Your task to perform on an android device: visit the assistant section in the google photos Image 0: 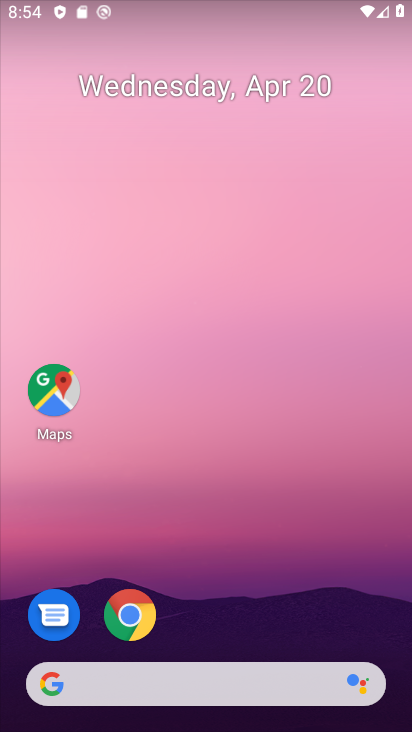
Step 0: drag from (233, 635) to (287, 43)
Your task to perform on an android device: visit the assistant section in the google photos Image 1: 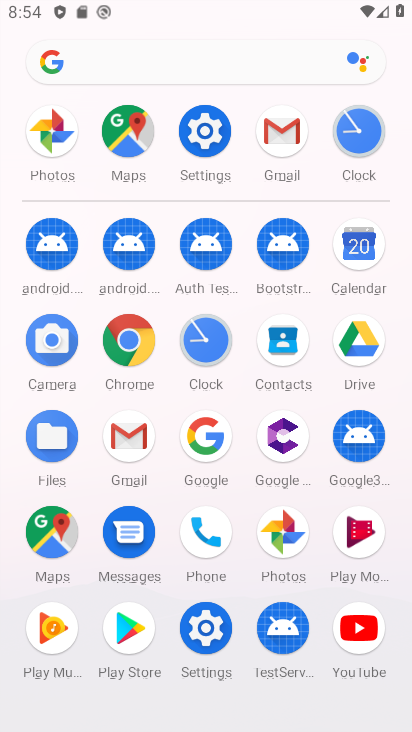
Step 1: click (52, 130)
Your task to perform on an android device: visit the assistant section in the google photos Image 2: 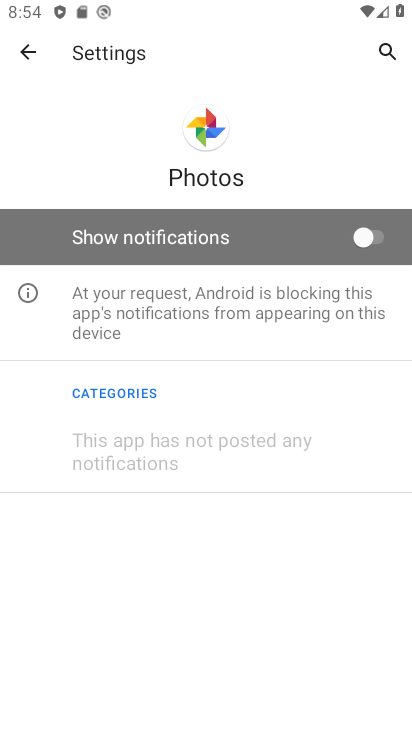
Step 2: press back button
Your task to perform on an android device: visit the assistant section in the google photos Image 3: 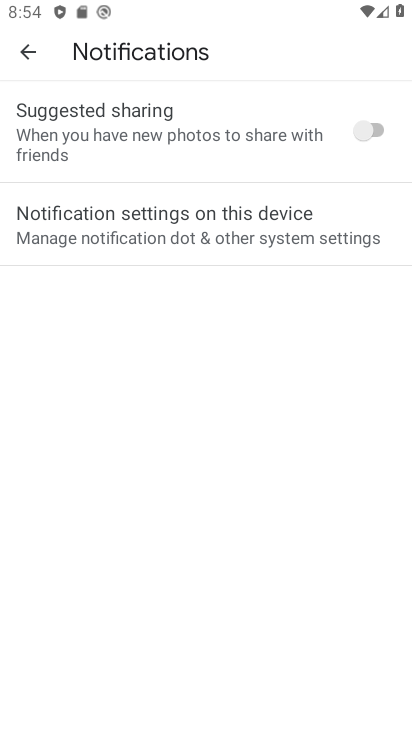
Step 3: press back button
Your task to perform on an android device: visit the assistant section in the google photos Image 4: 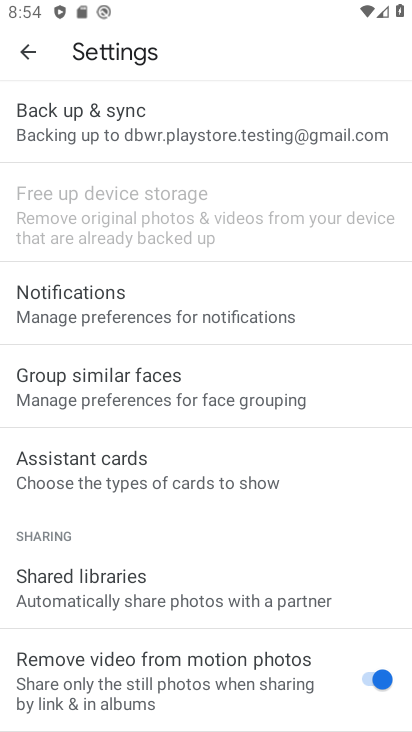
Step 4: press back button
Your task to perform on an android device: visit the assistant section in the google photos Image 5: 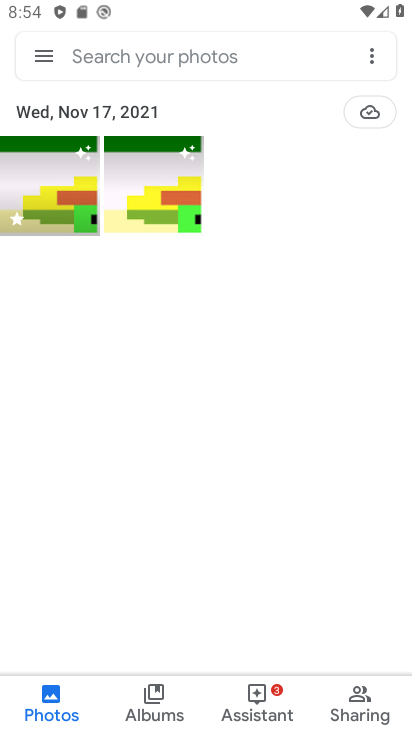
Step 5: click (262, 701)
Your task to perform on an android device: visit the assistant section in the google photos Image 6: 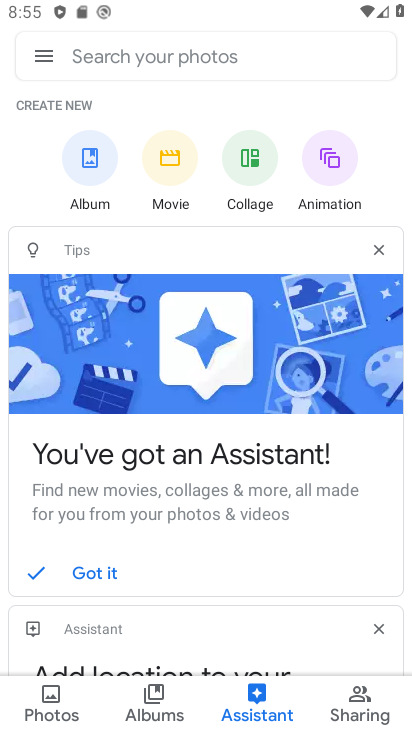
Step 6: task complete